Your task to perform on an android device: Do I have any events tomorrow? Image 0: 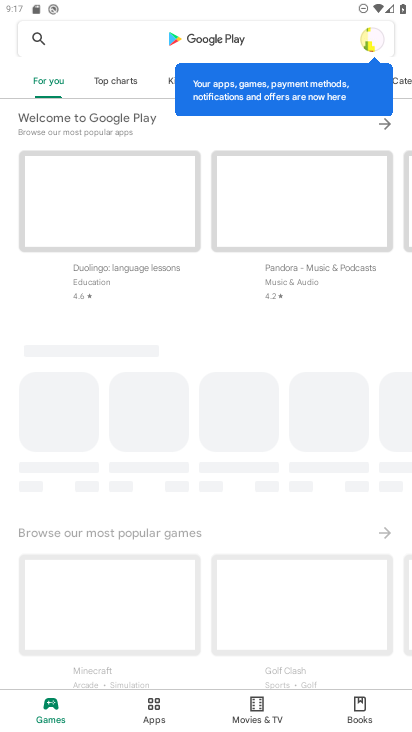
Step 0: press home button
Your task to perform on an android device: Do I have any events tomorrow? Image 1: 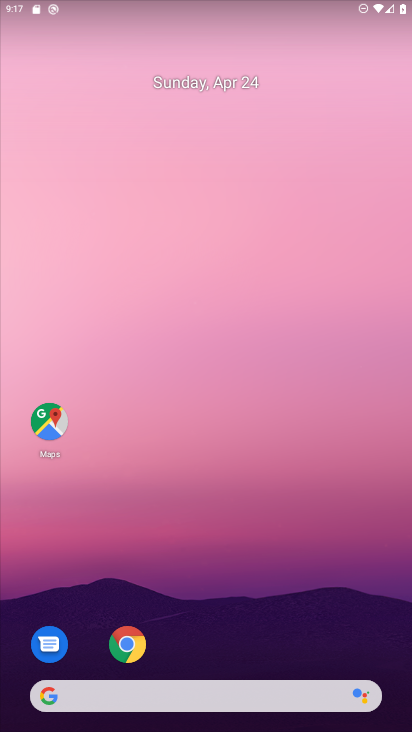
Step 1: drag from (220, 677) to (176, 78)
Your task to perform on an android device: Do I have any events tomorrow? Image 2: 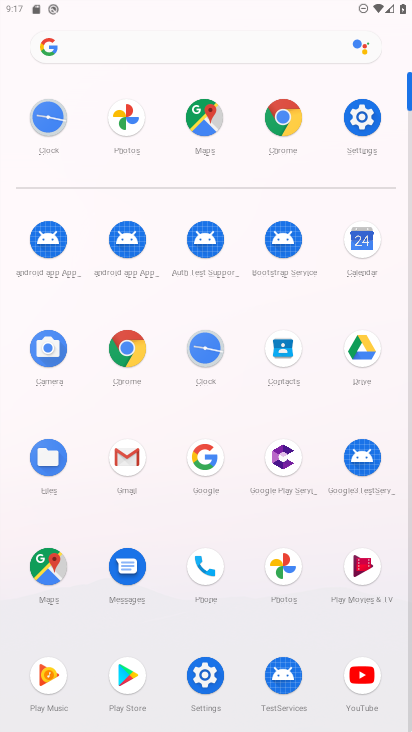
Step 2: click (363, 242)
Your task to perform on an android device: Do I have any events tomorrow? Image 3: 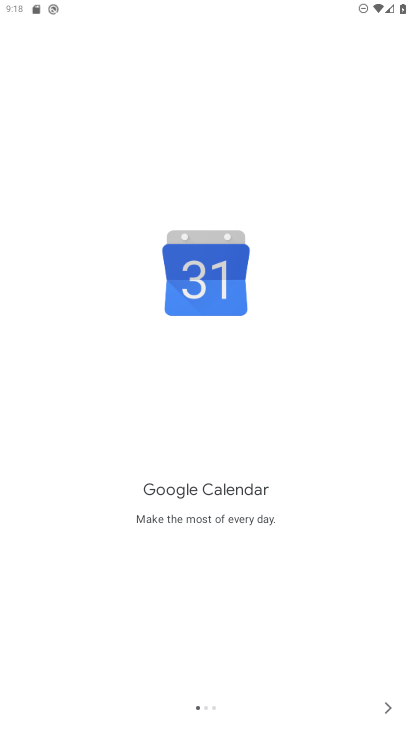
Step 3: click (390, 709)
Your task to perform on an android device: Do I have any events tomorrow? Image 4: 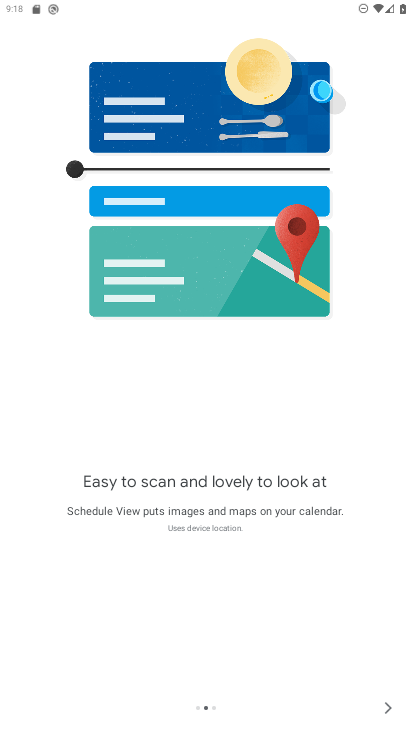
Step 4: click (390, 709)
Your task to perform on an android device: Do I have any events tomorrow? Image 5: 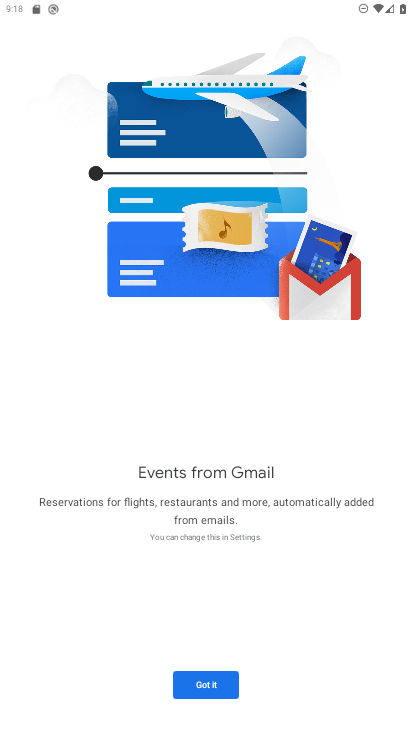
Step 5: click (216, 690)
Your task to perform on an android device: Do I have any events tomorrow? Image 6: 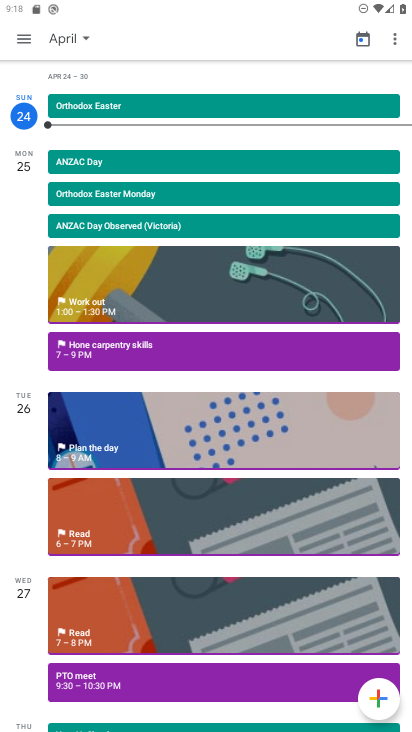
Step 6: click (22, 157)
Your task to perform on an android device: Do I have any events tomorrow? Image 7: 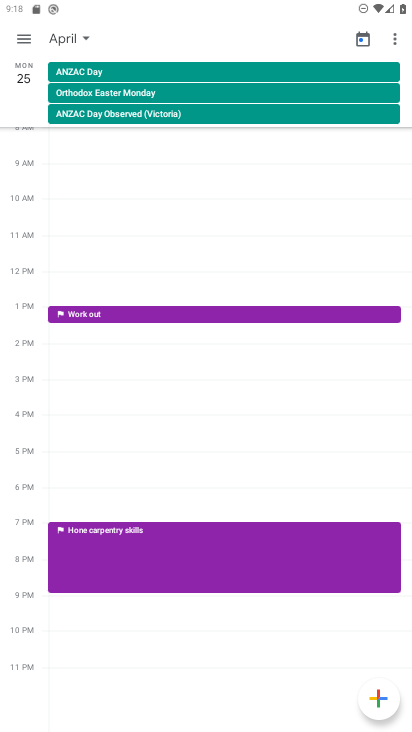
Step 7: task complete